Your task to perform on an android device: change notification settings in the gmail app Image 0: 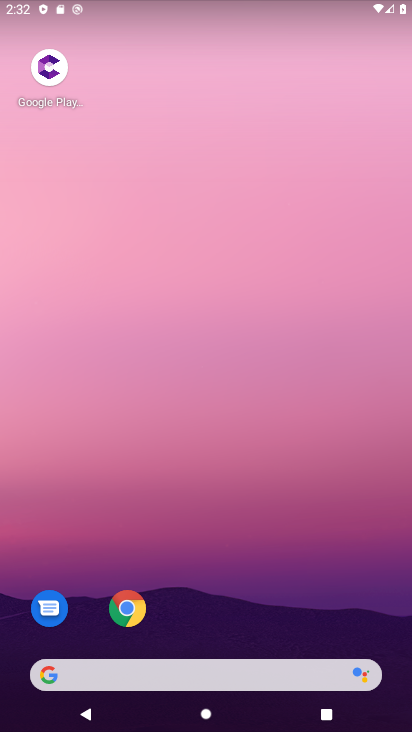
Step 0: drag from (87, 9) to (399, 352)
Your task to perform on an android device: change notification settings in the gmail app Image 1: 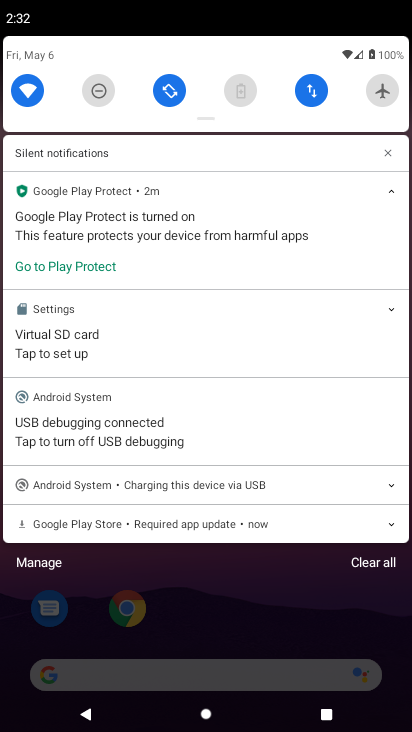
Step 1: click (383, 87)
Your task to perform on an android device: change notification settings in the gmail app Image 2: 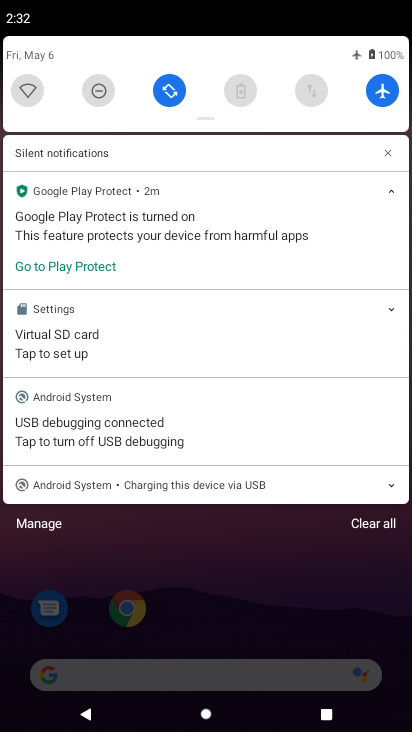
Step 2: task complete